Your task to perform on an android device: install app "Gboard" Image 0: 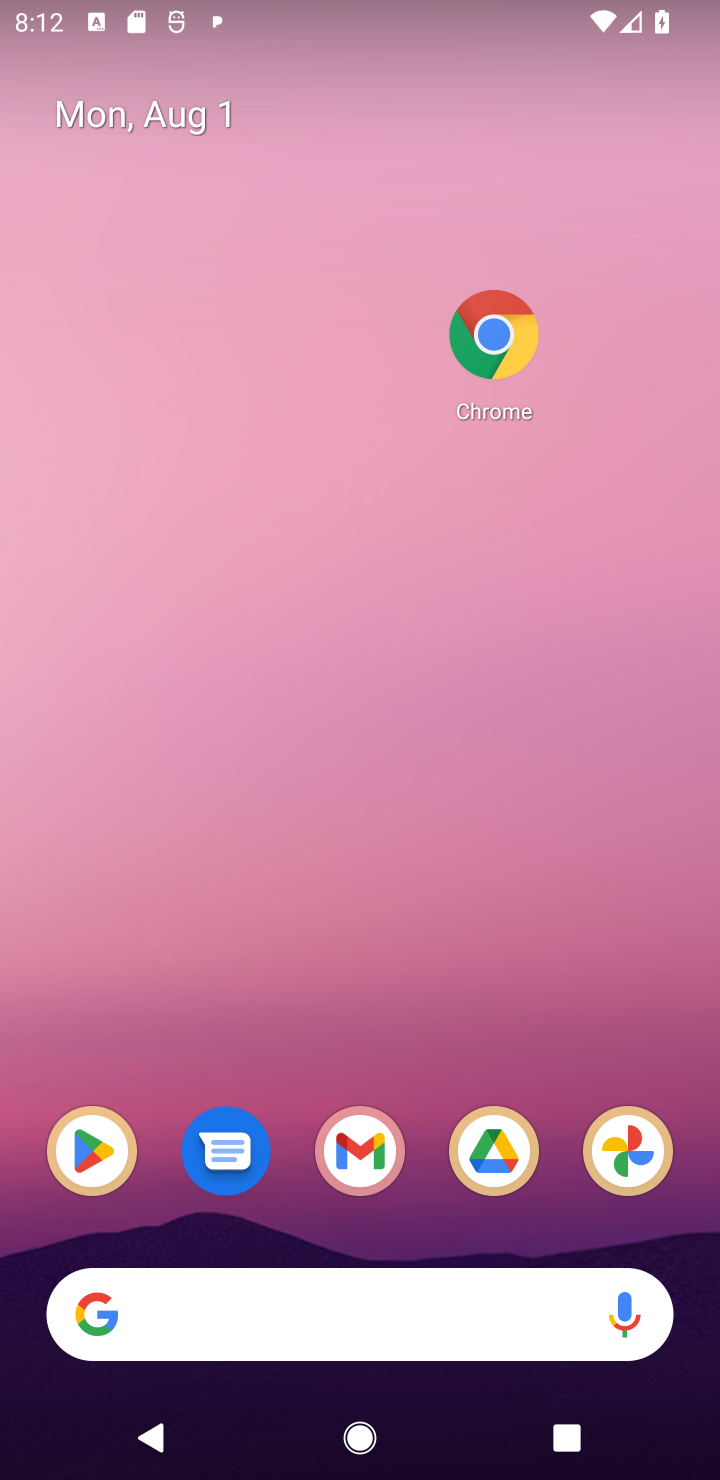
Step 0: click (98, 1163)
Your task to perform on an android device: install app "Gboard" Image 1: 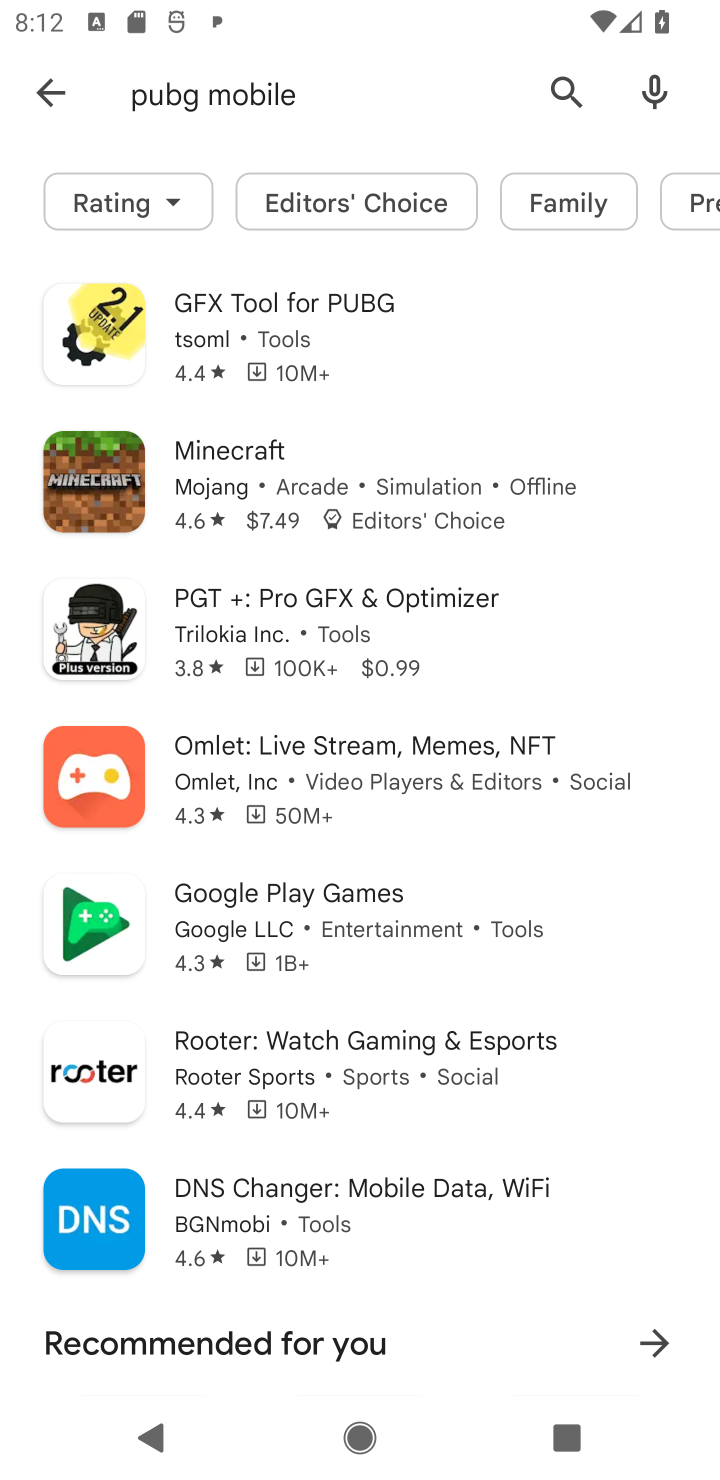
Step 1: click (572, 84)
Your task to perform on an android device: install app "Gboard" Image 2: 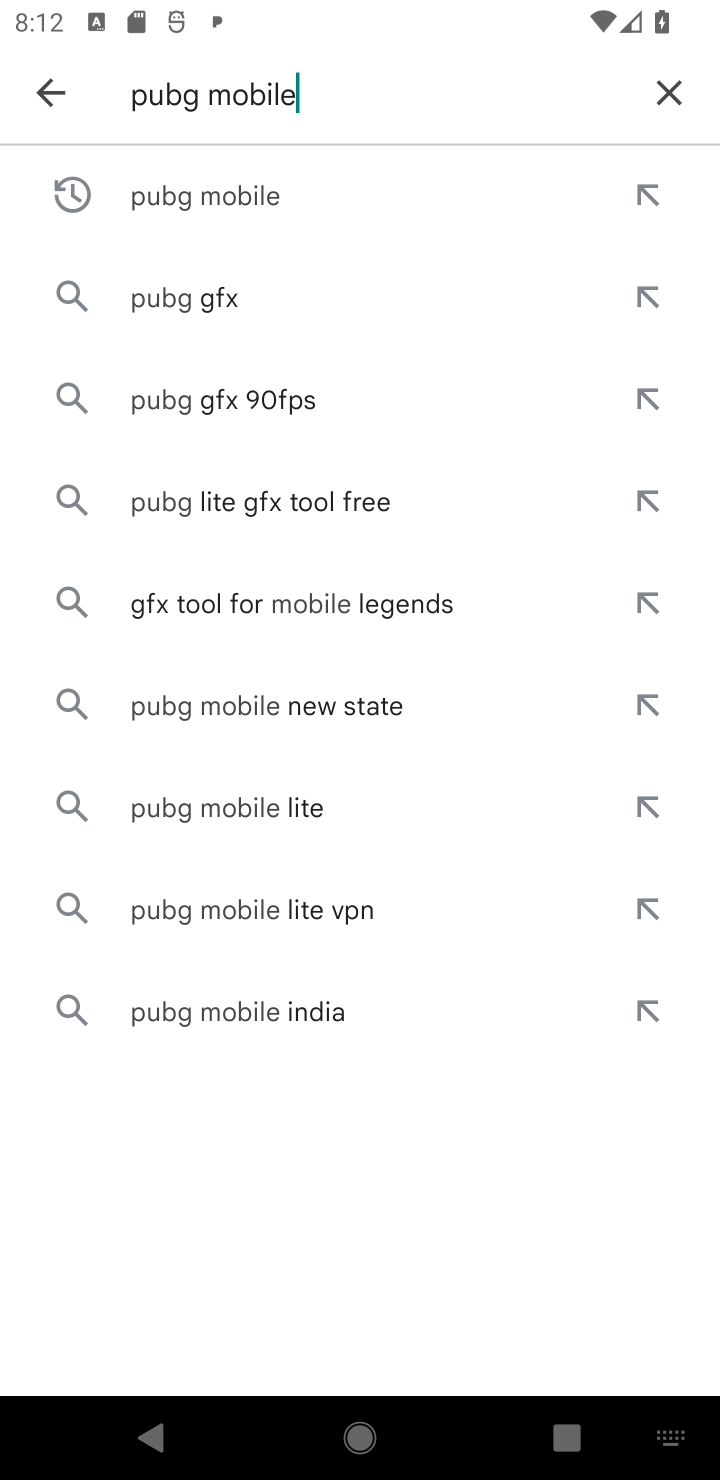
Step 2: click (669, 90)
Your task to perform on an android device: install app "Gboard" Image 3: 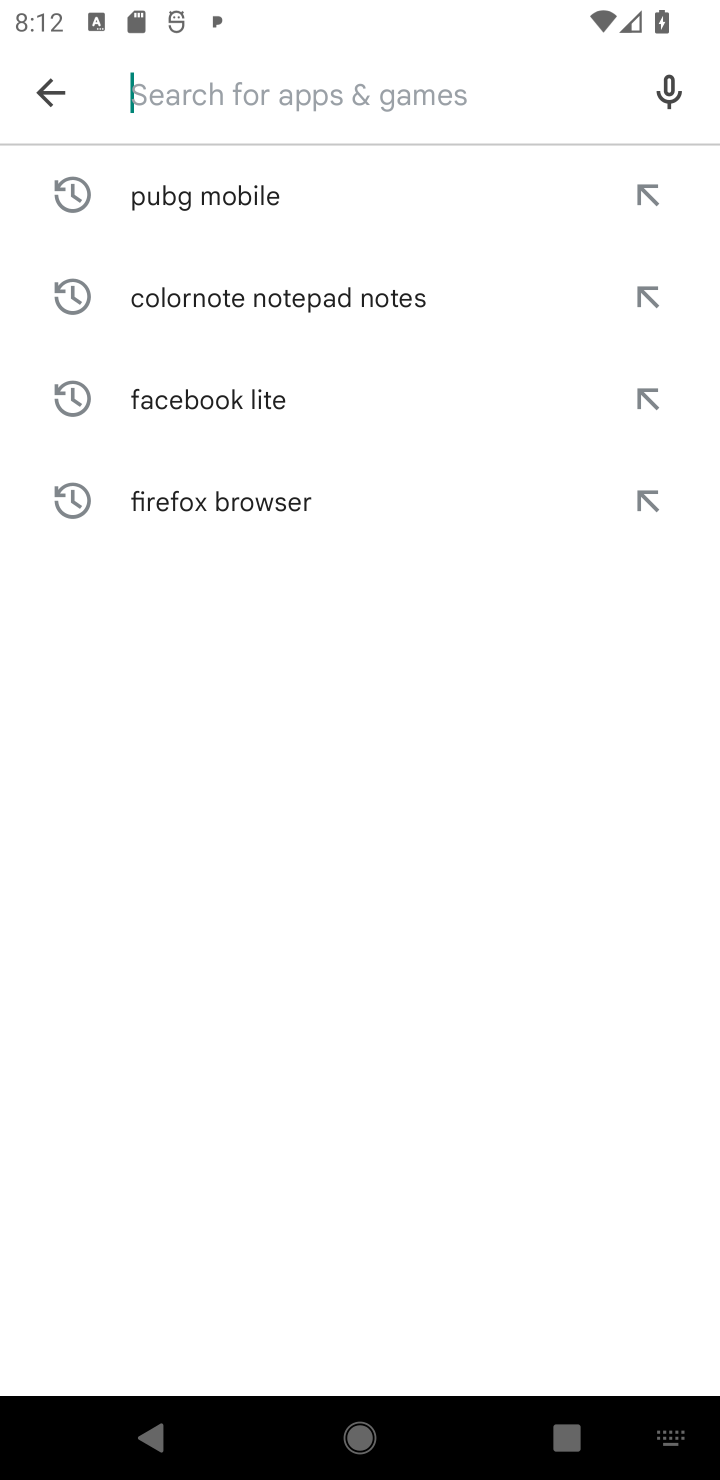
Step 3: type "Gboard"
Your task to perform on an android device: install app "Gboard" Image 4: 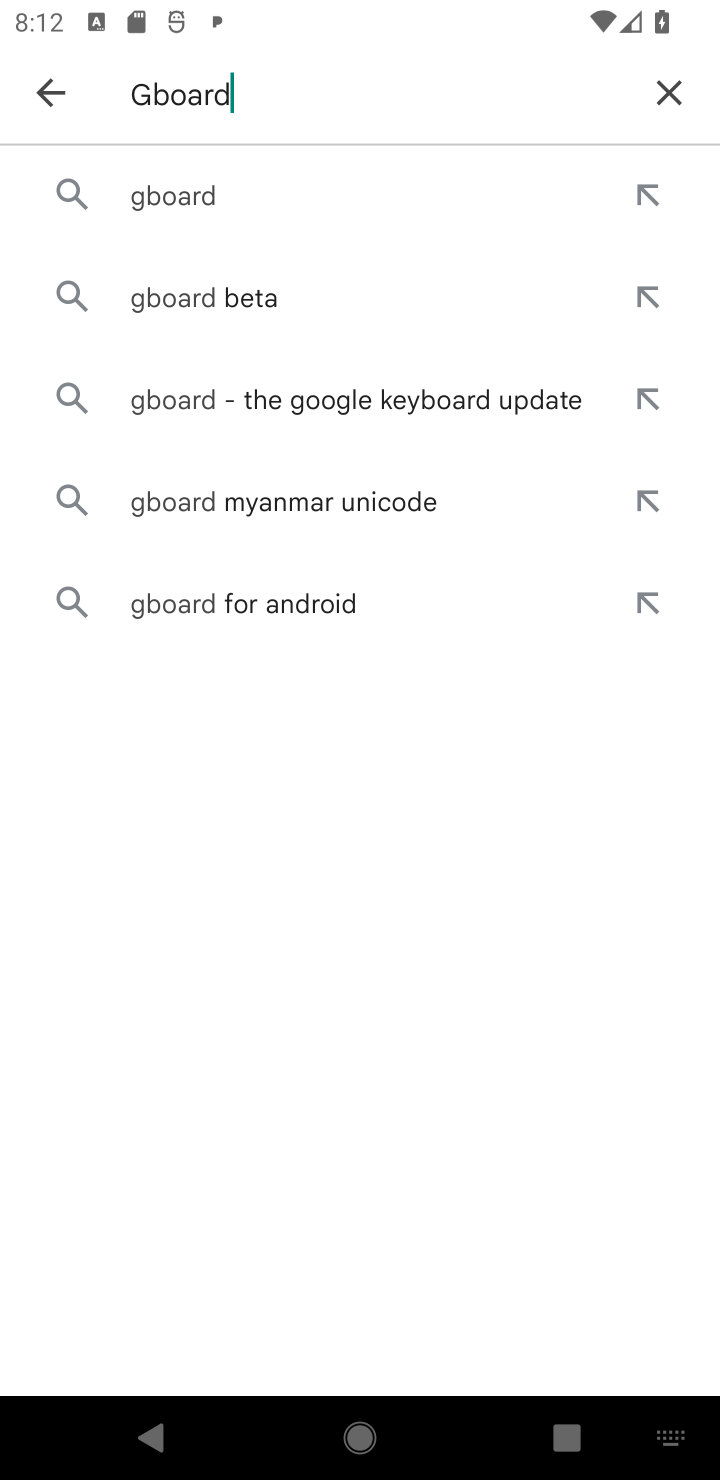
Step 4: click (149, 201)
Your task to perform on an android device: install app "Gboard" Image 5: 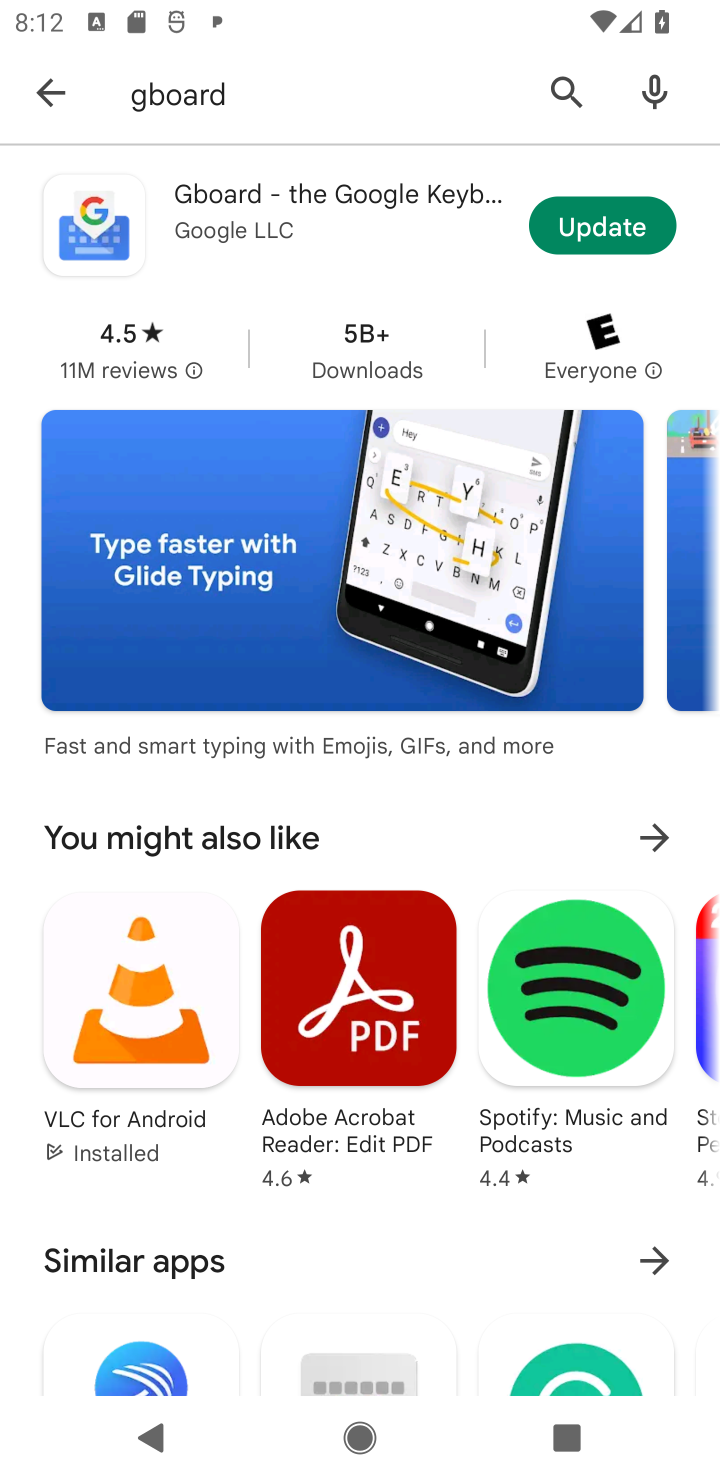
Step 5: task complete